Your task to perform on an android device: toggle javascript in the chrome app Image 0: 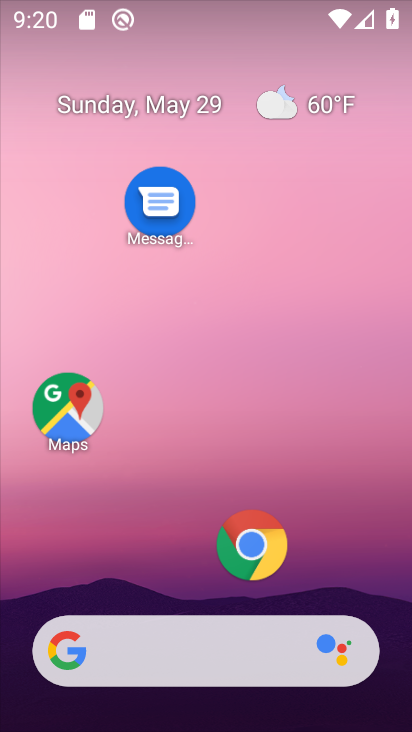
Step 0: click (249, 533)
Your task to perform on an android device: toggle javascript in the chrome app Image 1: 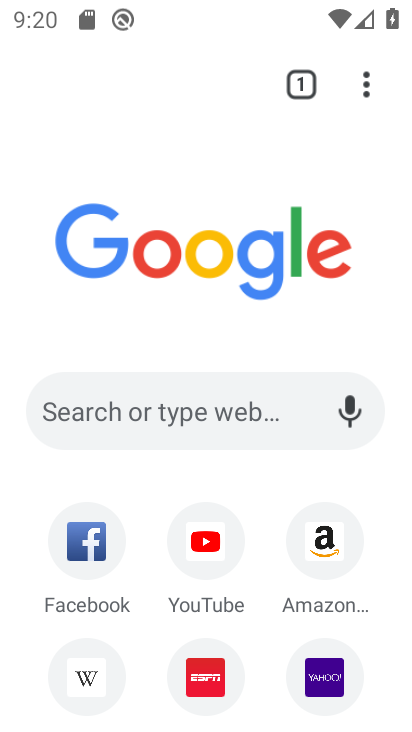
Step 1: click (366, 86)
Your task to perform on an android device: toggle javascript in the chrome app Image 2: 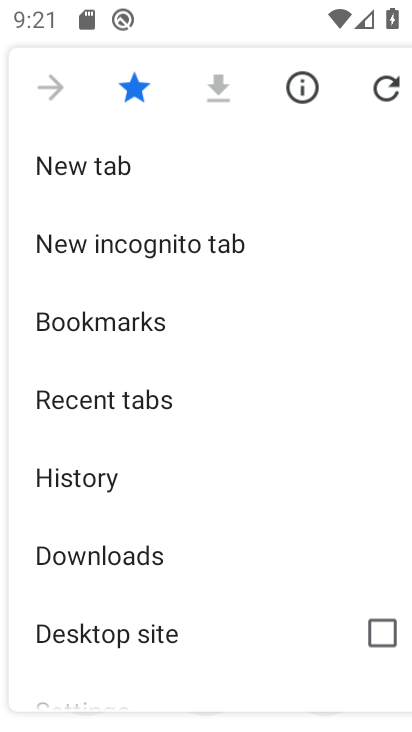
Step 2: drag from (161, 665) to (184, 249)
Your task to perform on an android device: toggle javascript in the chrome app Image 3: 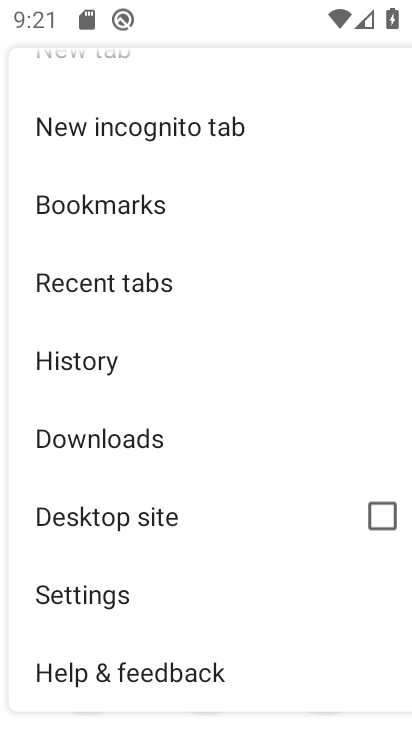
Step 3: click (100, 595)
Your task to perform on an android device: toggle javascript in the chrome app Image 4: 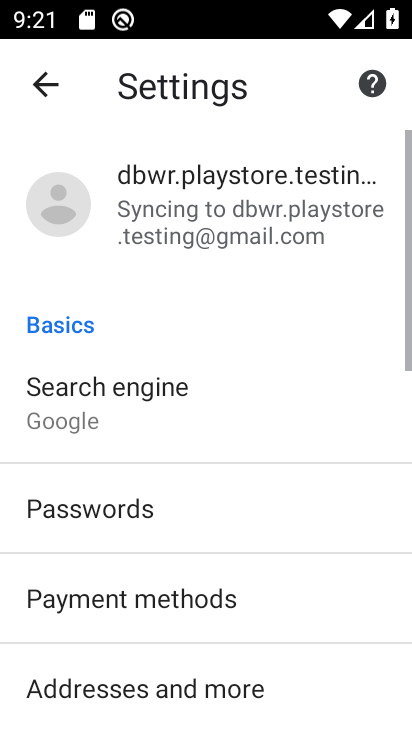
Step 4: drag from (157, 710) to (234, 296)
Your task to perform on an android device: toggle javascript in the chrome app Image 5: 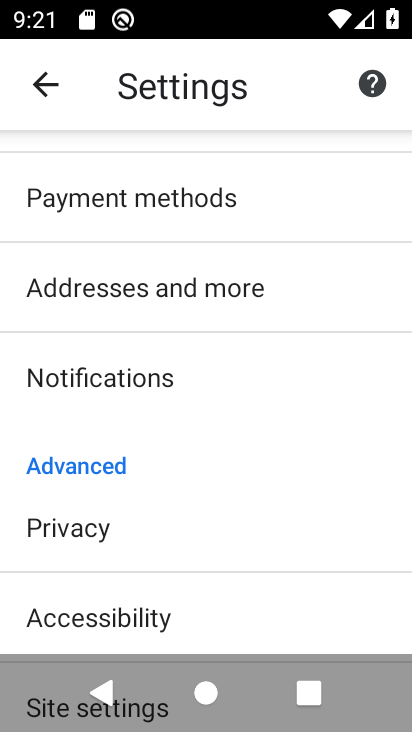
Step 5: drag from (174, 654) to (219, 347)
Your task to perform on an android device: toggle javascript in the chrome app Image 6: 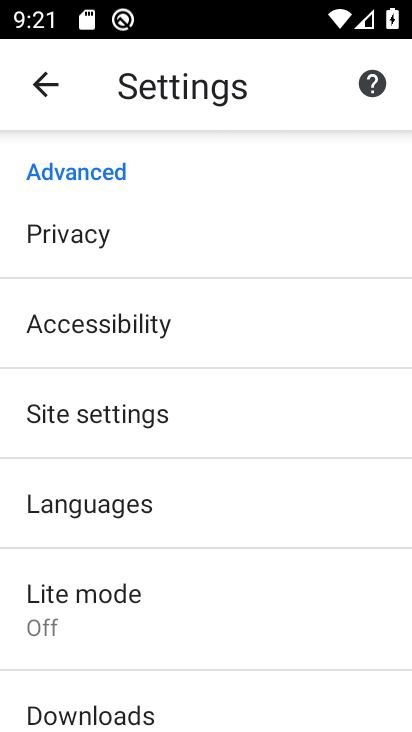
Step 6: click (81, 419)
Your task to perform on an android device: toggle javascript in the chrome app Image 7: 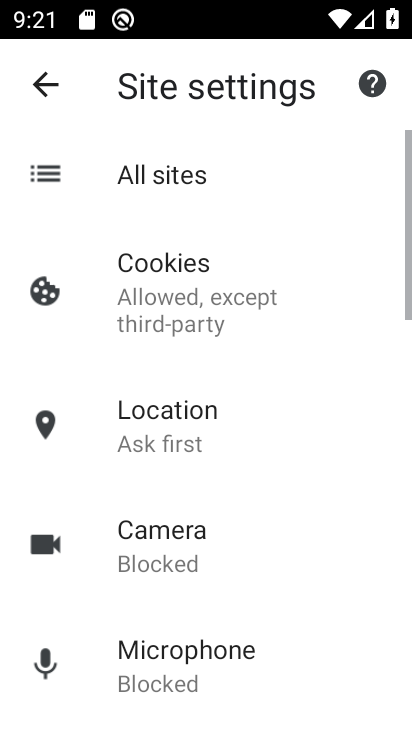
Step 7: drag from (139, 701) to (258, 270)
Your task to perform on an android device: toggle javascript in the chrome app Image 8: 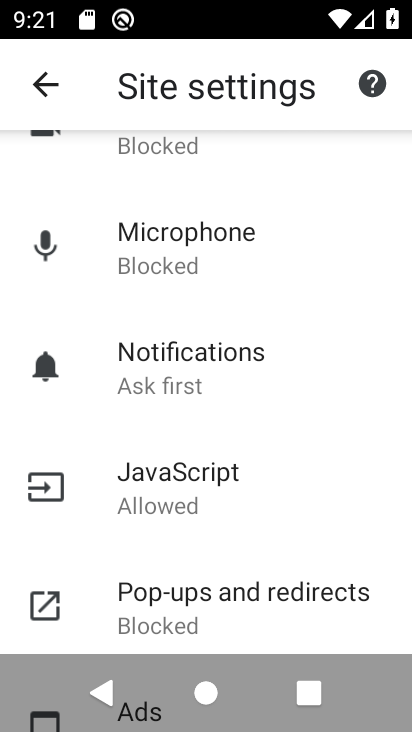
Step 8: click (209, 504)
Your task to perform on an android device: toggle javascript in the chrome app Image 9: 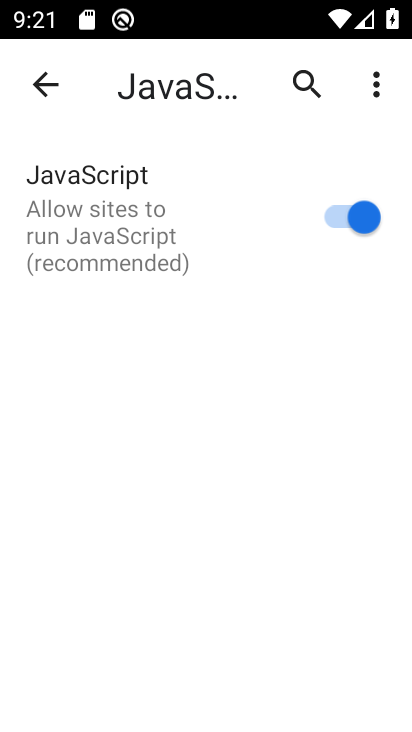
Step 9: click (338, 213)
Your task to perform on an android device: toggle javascript in the chrome app Image 10: 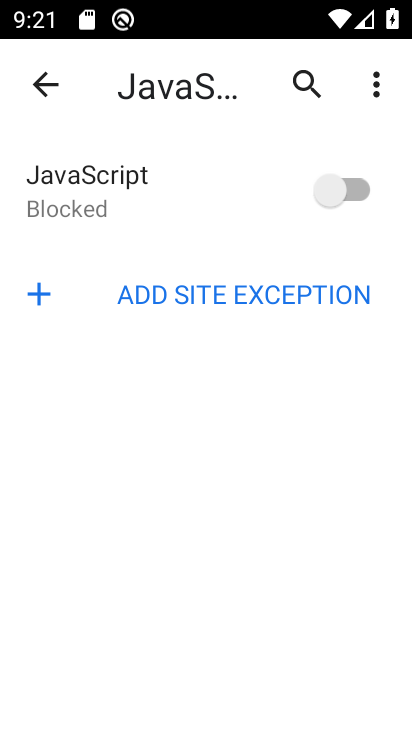
Step 10: task complete